Your task to perform on an android device: change keyboard looks Image 0: 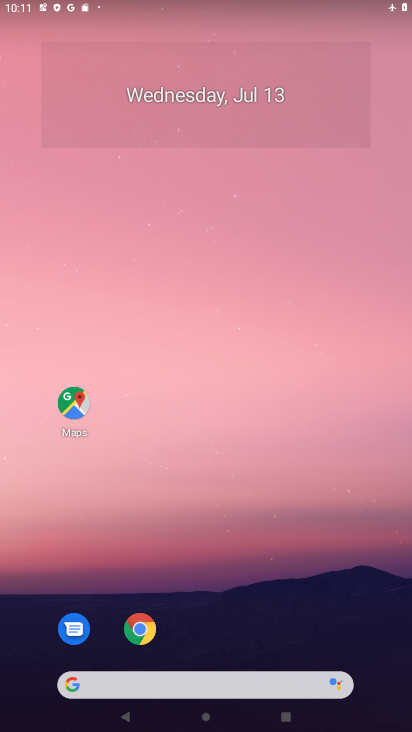
Step 0: drag from (329, 622) to (312, 140)
Your task to perform on an android device: change keyboard looks Image 1: 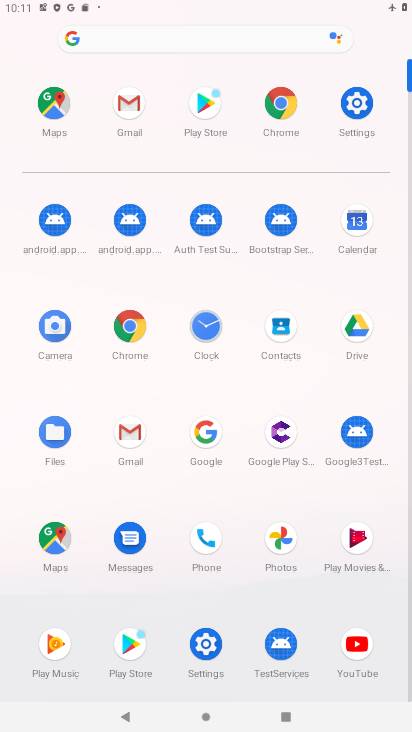
Step 1: task complete